Your task to perform on an android device: turn on the 24-hour format for clock Image 0: 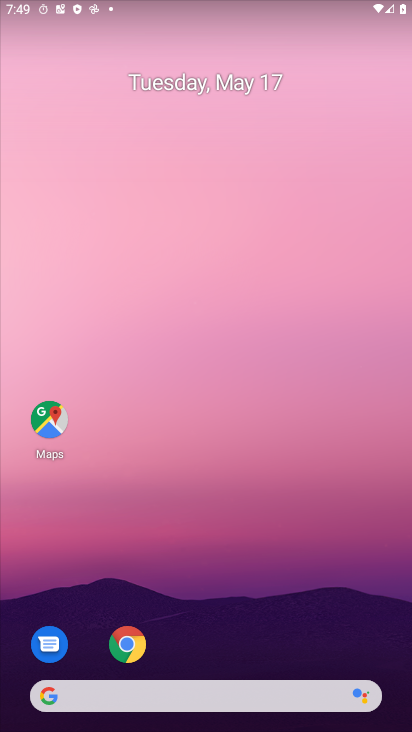
Step 0: drag from (300, 635) to (238, 161)
Your task to perform on an android device: turn on the 24-hour format for clock Image 1: 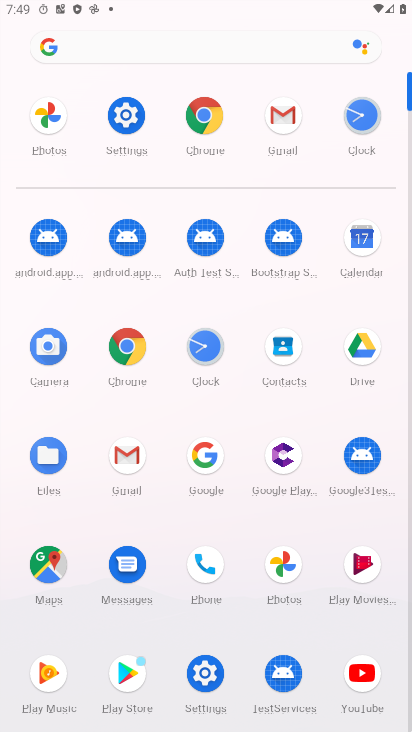
Step 1: click (364, 114)
Your task to perform on an android device: turn on the 24-hour format for clock Image 2: 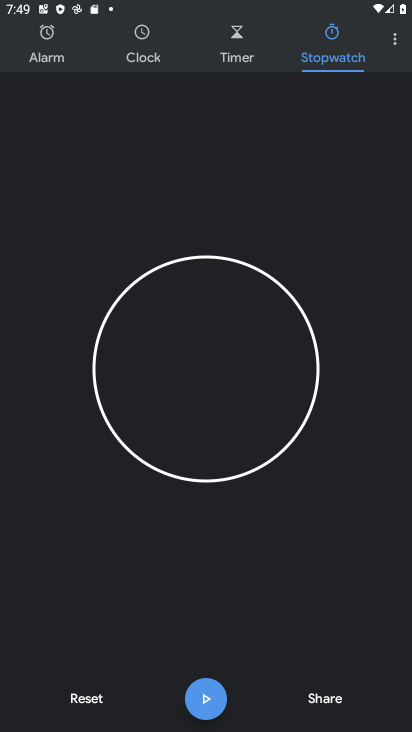
Step 2: click (392, 46)
Your task to perform on an android device: turn on the 24-hour format for clock Image 3: 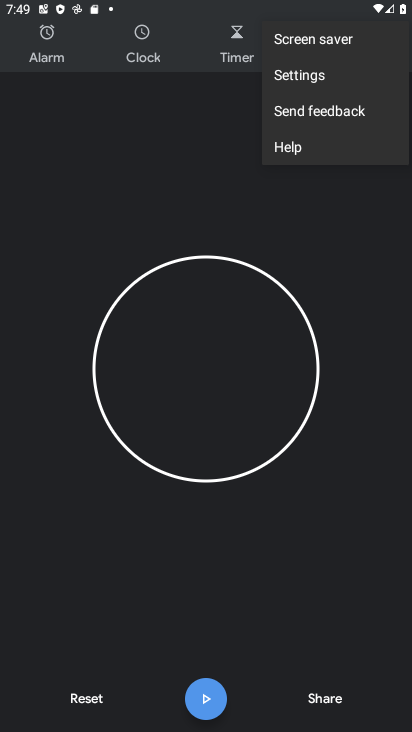
Step 3: click (305, 74)
Your task to perform on an android device: turn on the 24-hour format for clock Image 4: 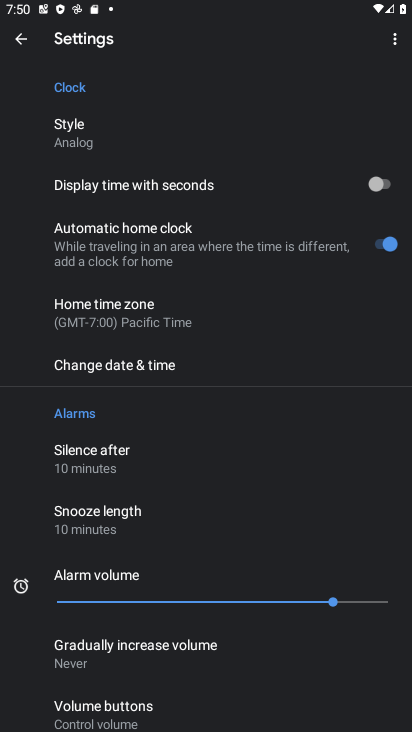
Step 4: click (166, 366)
Your task to perform on an android device: turn on the 24-hour format for clock Image 5: 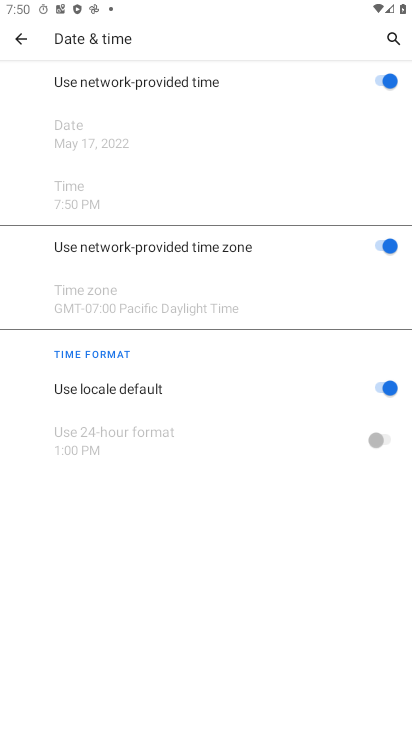
Step 5: task complete